Your task to perform on an android device: allow cookies in the chrome app Image 0: 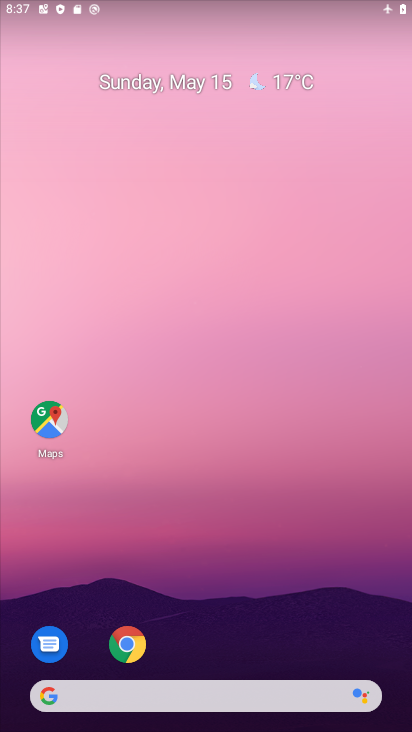
Step 0: drag from (289, 711) to (273, 123)
Your task to perform on an android device: allow cookies in the chrome app Image 1: 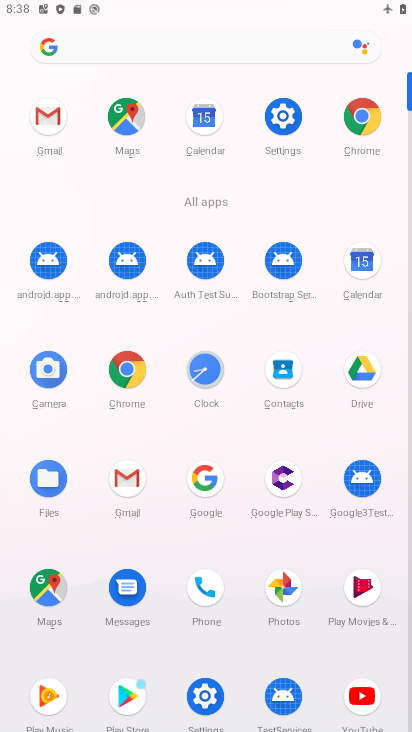
Step 1: click (356, 123)
Your task to perform on an android device: allow cookies in the chrome app Image 2: 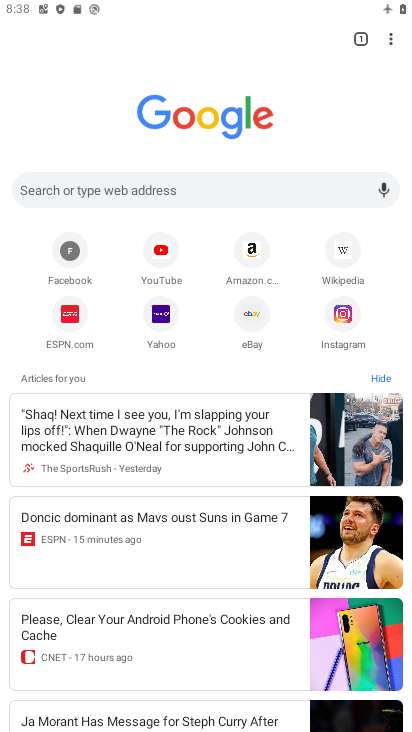
Step 2: click (388, 50)
Your task to perform on an android device: allow cookies in the chrome app Image 3: 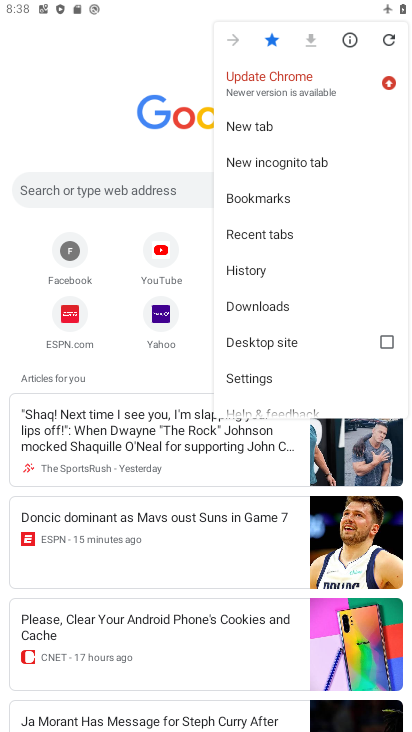
Step 3: click (254, 374)
Your task to perform on an android device: allow cookies in the chrome app Image 4: 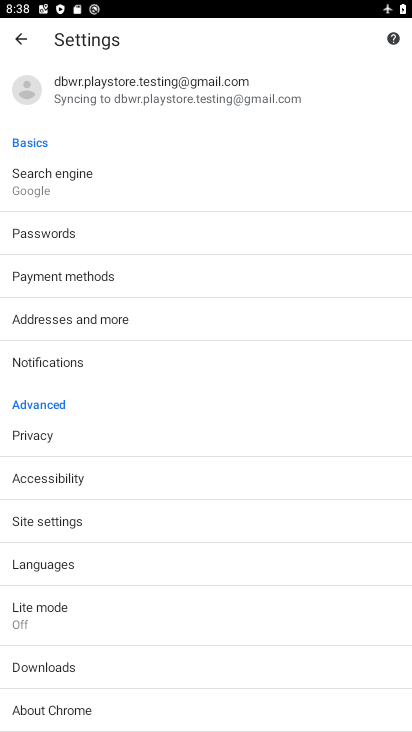
Step 4: click (56, 510)
Your task to perform on an android device: allow cookies in the chrome app Image 5: 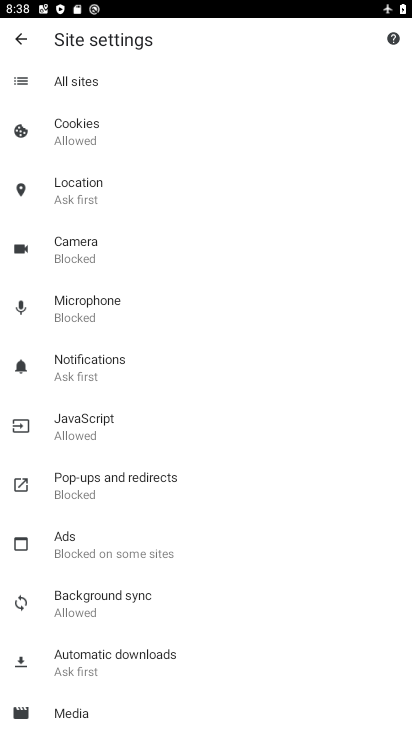
Step 5: click (116, 141)
Your task to perform on an android device: allow cookies in the chrome app Image 6: 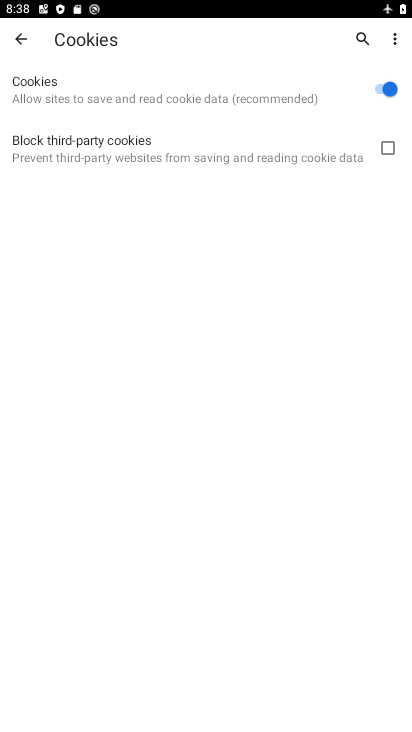
Step 6: task complete